Your task to perform on an android device: turn off improve location accuracy Image 0: 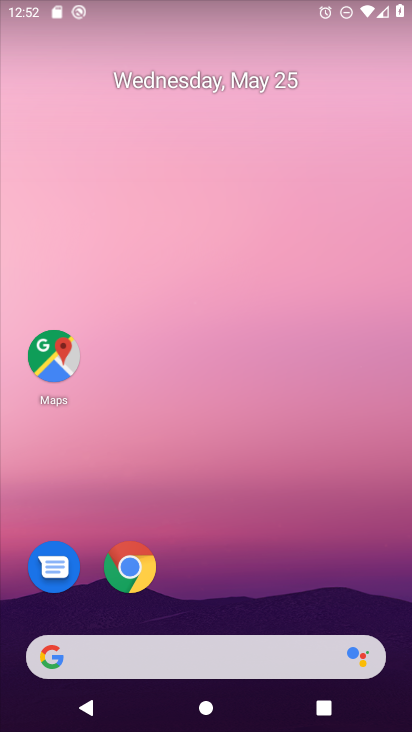
Step 0: drag from (397, 685) to (399, 204)
Your task to perform on an android device: turn off improve location accuracy Image 1: 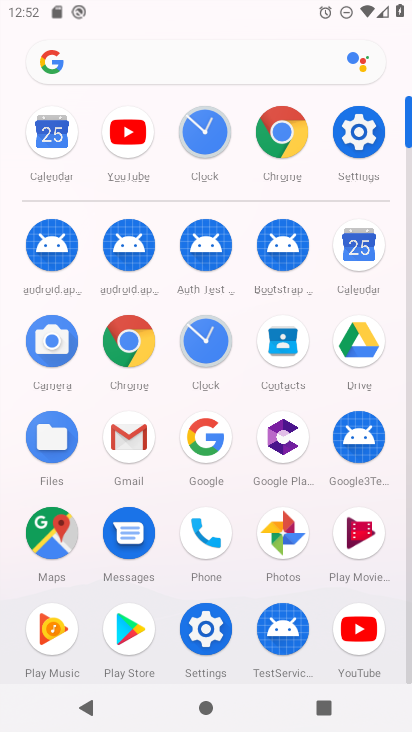
Step 1: click (226, 636)
Your task to perform on an android device: turn off improve location accuracy Image 2: 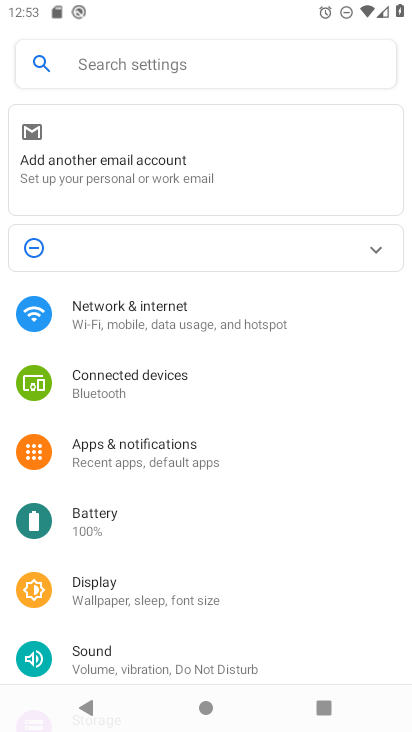
Step 2: drag from (329, 634) to (327, 353)
Your task to perform on an android device: turn off improve location accuracy Image 3: 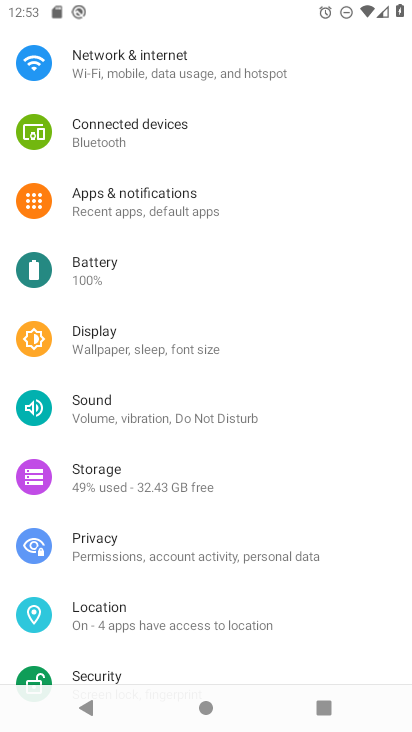
Step 3: click (105, 618)
Your task to perform on an android device: turn off improve location accuracy Image 4: 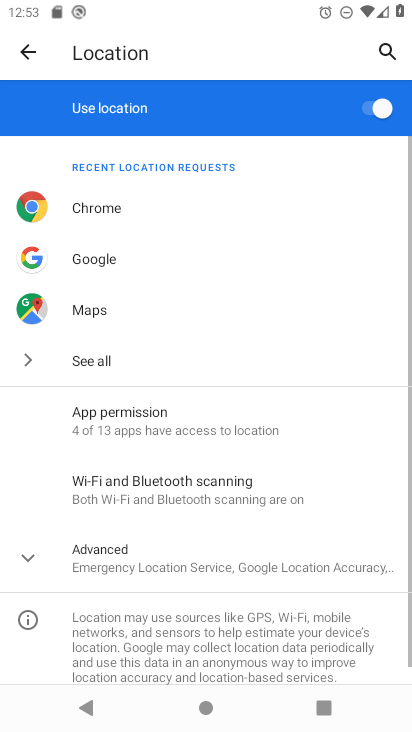
Step 4: click (22, 554)
Your task to perform on an android device: turn off improve location accuracy Image 5: 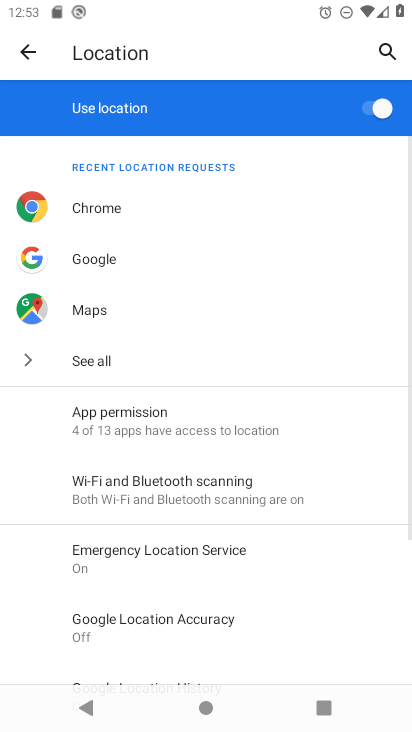
Step 5: drag from (360, 632) to (324, 274)
Your task to perform on an android device: turn off improve location accuracy Image 6: 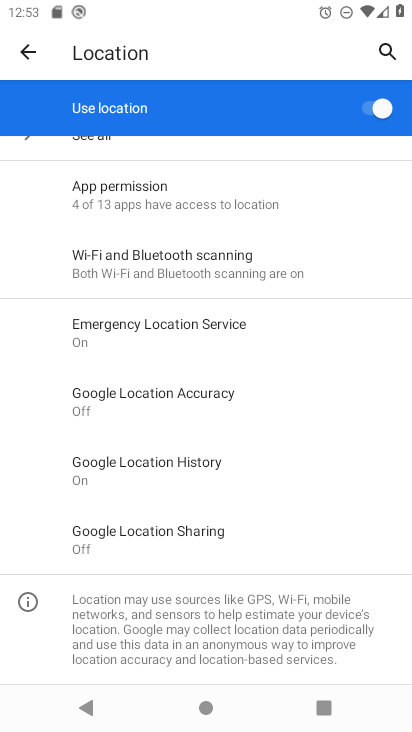
Step 6: click (142, 391)
Your task to perform on an android device: turn off improve location accuracy Image 7: 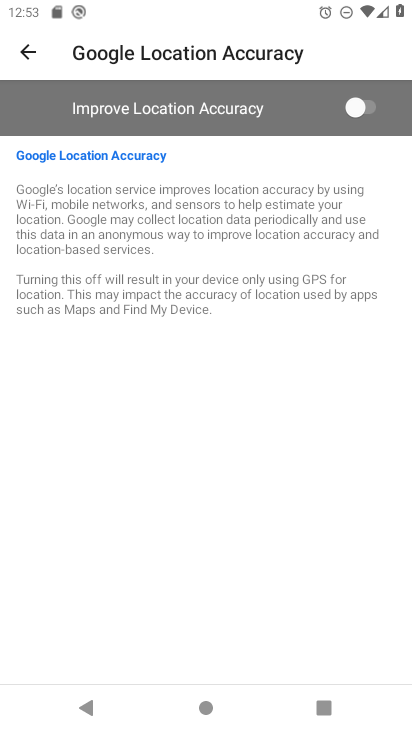
Step 7: task complete